Your task to perform on an android device: move a message to another label in the gmail app Image 0: 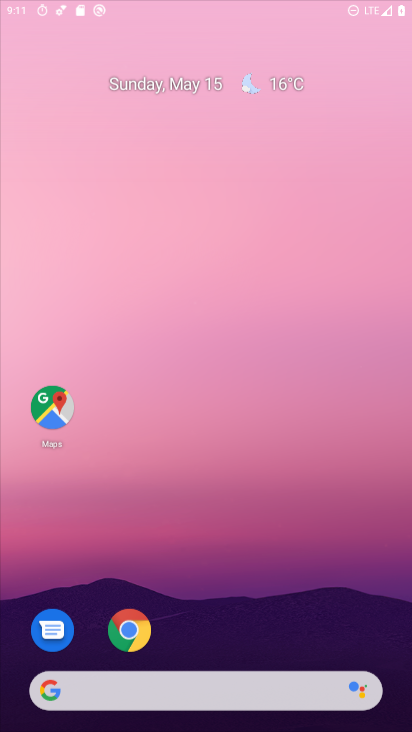
Step 0: click (285, 22)
Your task to perform on an android device: move a message to another label in the gmail app Image 1: 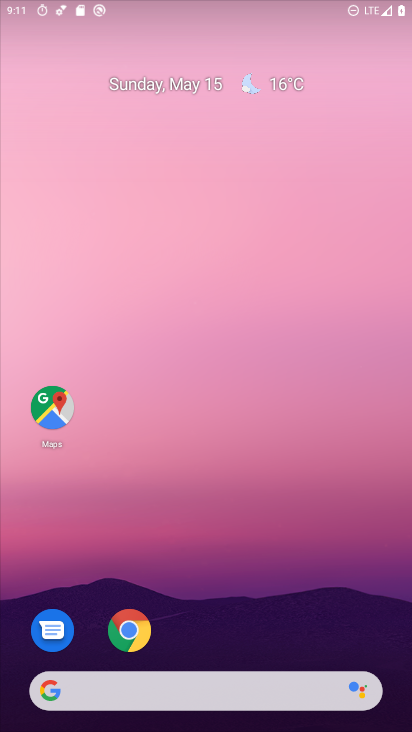
Step 1: drag from (181, 606) to (151, 128)
Your task to perform on an android device: move a message to another label in the gmail app Image 2: 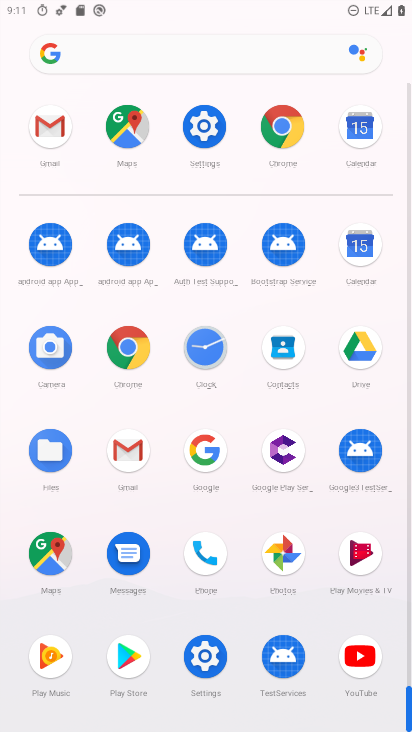
Step 2: click (125, 440)
Your task to perform on an android device: move a message to another label in the gmail app Image 3: 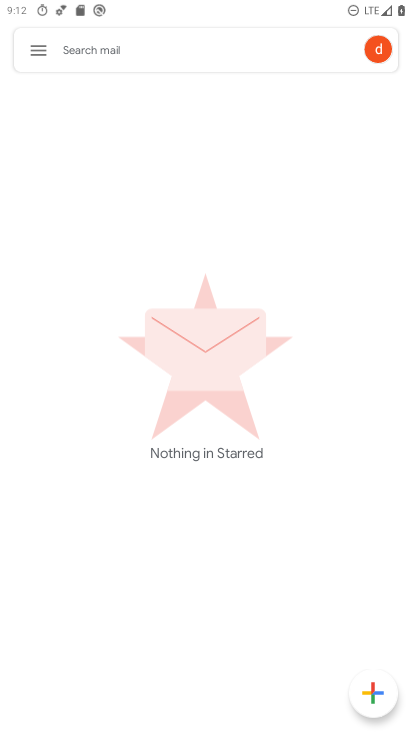
Step 3: click (24, 53)
Your task to perform on an android device: move a message to another label in the gmail app Image 4: 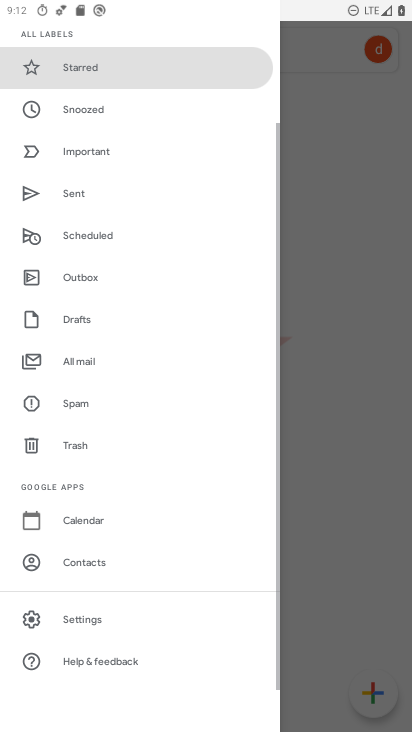
Step 4: drag from (168, 514) to (166, 305)
Your task to perform on an android device: move a message to another label in the gmail app Image 5: 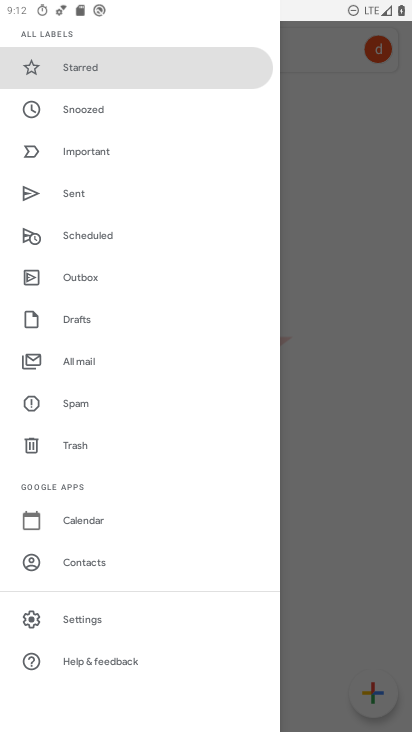
Step 5: click (116, 619)
Your task to perform on an android device: move a message to another label in the gmail app Image 6: 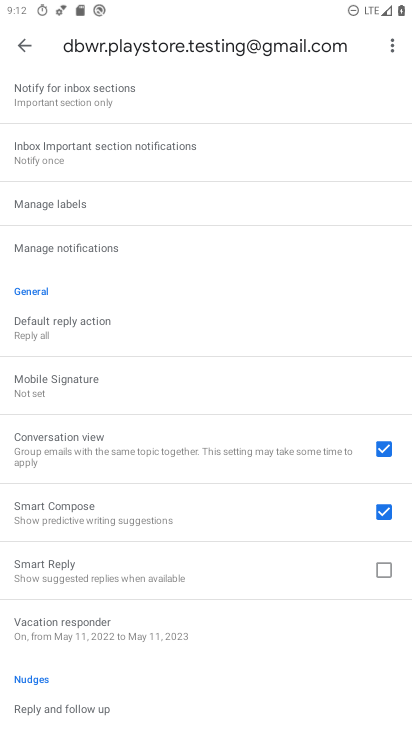
Step 6: drag from (212, 472) to (236, 69)
Your task to perform on an android device: move a message to another label in the gmail app Image 7: 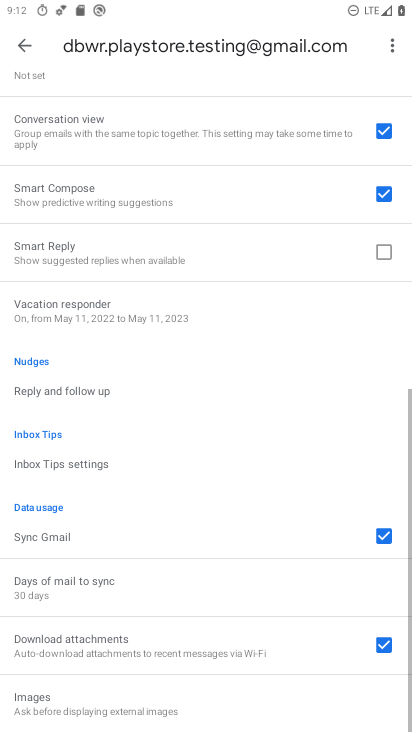
Step 7: drag from (174, 608) to (192, 310)
Your task to perform on an android device: move a message to another label in the gmail app Image 8: 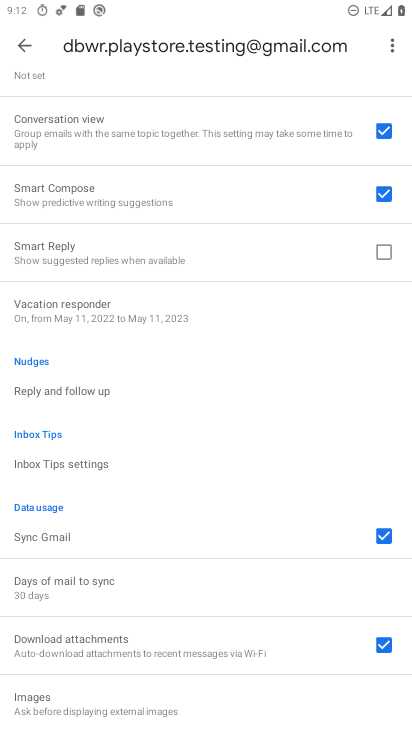
Step 8: drag from (187, 290) to (213, 656)
Your task to perform on an android device: move a message to another label in the gmail app Image 9: 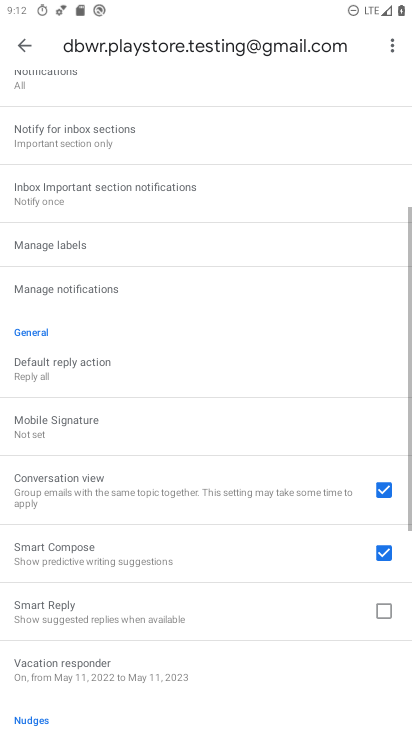
Step 9: drag from (214, 642) to (260, 286)
Your task to perform on an android device: move a message to another label in the gmail app Image 10: 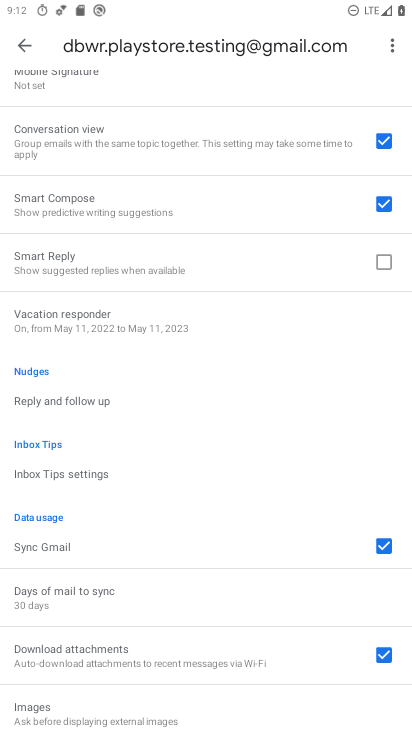
Step 10: drag from (261, 193) to (177, 729)
Your task to perform on an android device: move a message to another label in the gmail app Image 11: 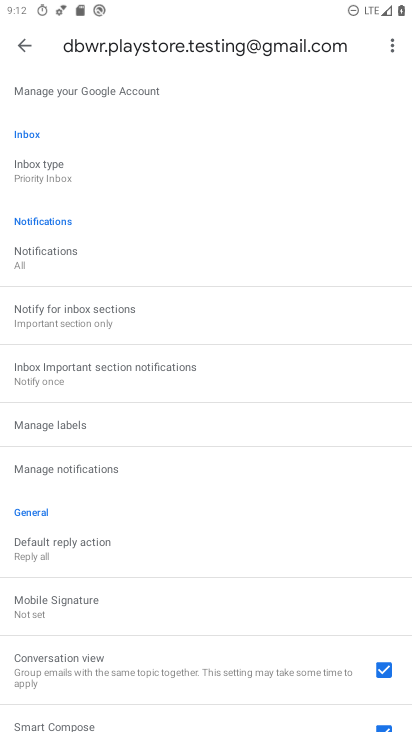
Step 11: drag from (179, 173) to (210, 459)
Your task to perform on an android device: move a message to another label in the gmail app Image 12: 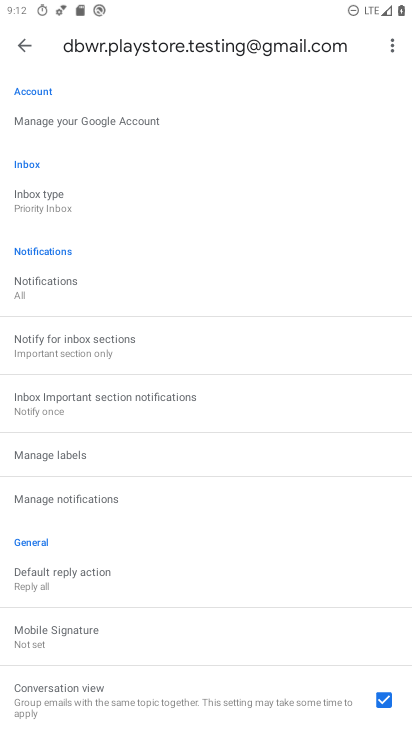
Step 12: click (18, 43)
Your task to perform on an android device: move a message to another label in the gmail app Image 13: 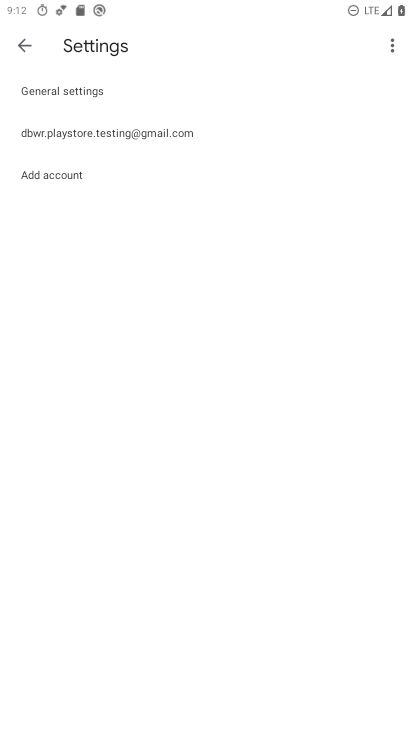
Step 13: click (17, 43)
Your task to perform on an android device: move a message to another label in the gmail app Image 14: 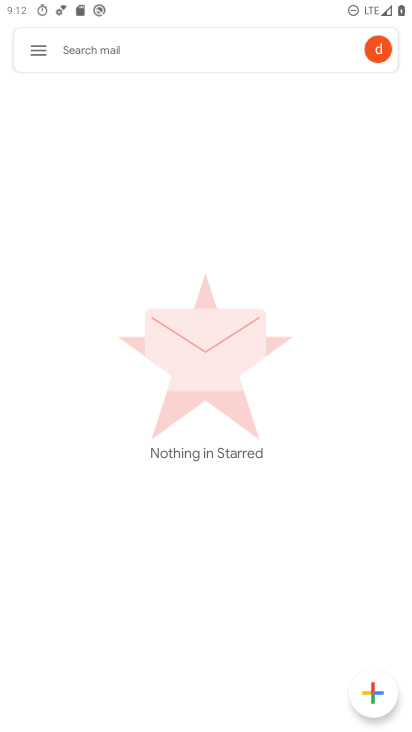
Step 14: click (30, 53)
Your task to perform on an android device: move a message to another label in the gmail app Image 15: 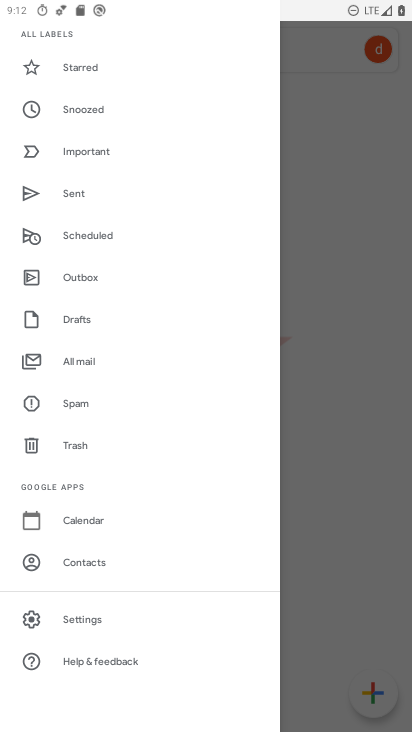
Step 15: task complete